Your task to perform on an android device: Open ESPN.com Image 0: 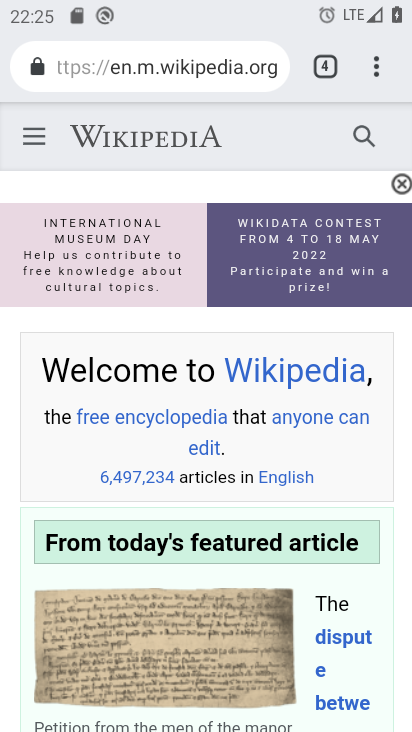
Step 0: press home button
Your task to perform on an android device: Open ESPN.com Image 1: 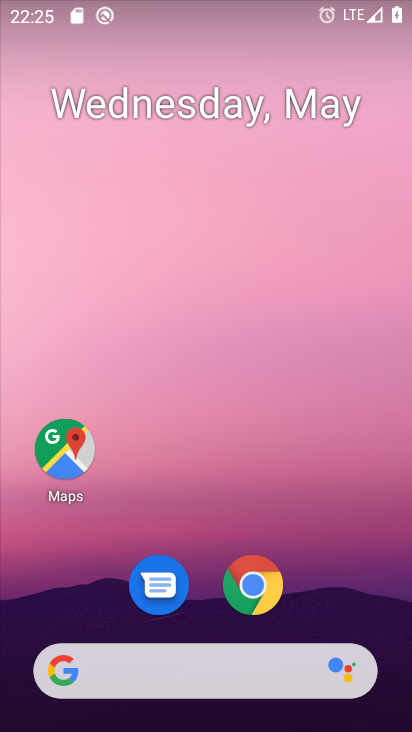
Step 1: click (264, 688)
Your task to perform on an android device: Open ESPN.com Image 2: 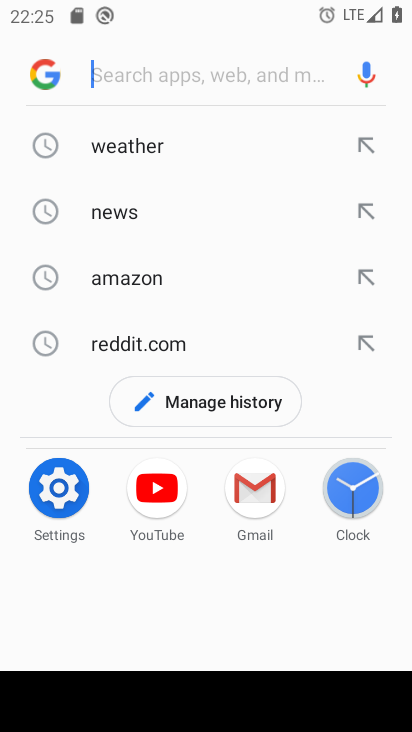
Step 2: type "espn.com"
Your task to perform on an android device: Open ESPN.com Image 3: 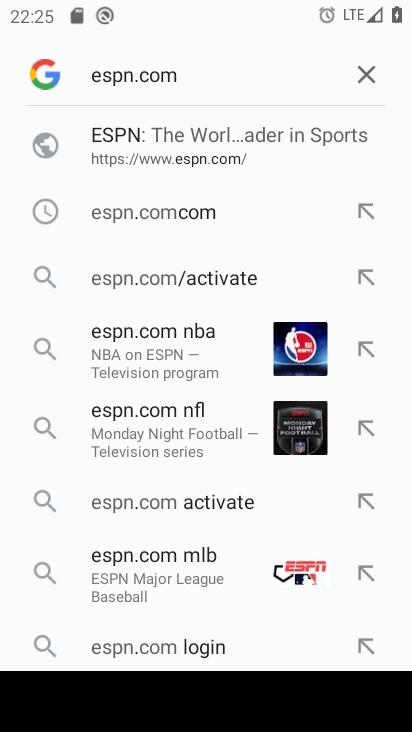
Step 3: click (103, 143)
Your task to perform on an android device: Open ESPN.com Image 4: 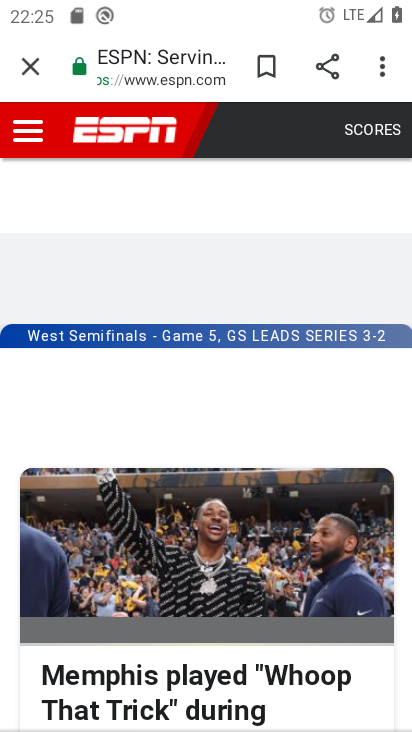
Step 4: task complete